Your task to perform on an android device: turn on the 12-hour format for clock Image 0: 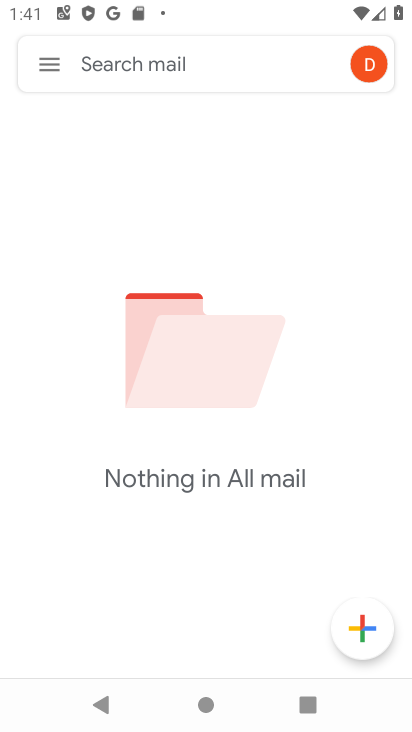
Step 0: press home button
Your task to perform on an android device: turn on the 12-hour format for clock Image 1: 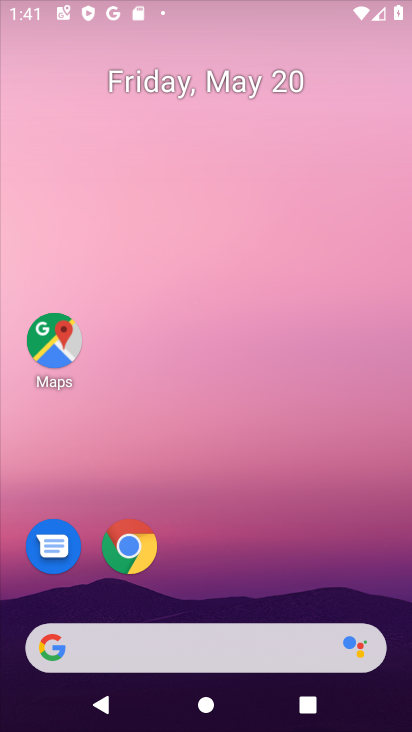
Step 1: drag from (340, 596) to (395, 7)
Your task to perform on an android device: turn on the 12-hour format for clock Image 2: 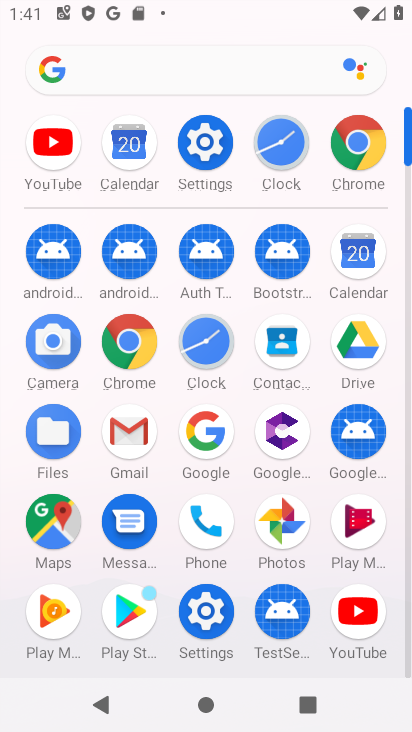
Step 2: click (210, 345)
Your task to perform on an android device: turn on the 12-hour format for clock Image 3: 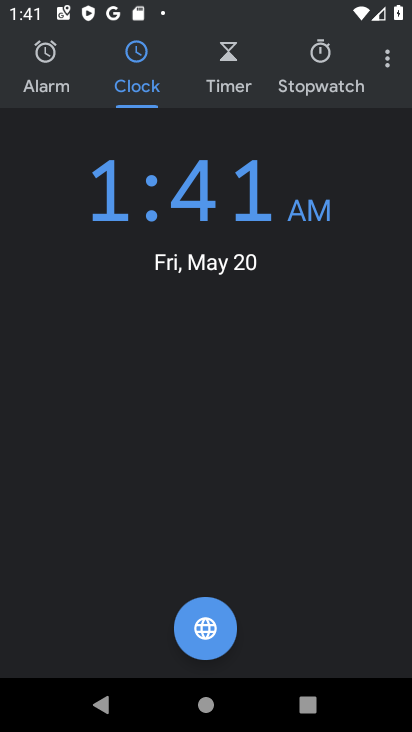
Step 3: click (393, 60)
Your task to perform on an android device: turn on the 12-hour format for clock Image 4: 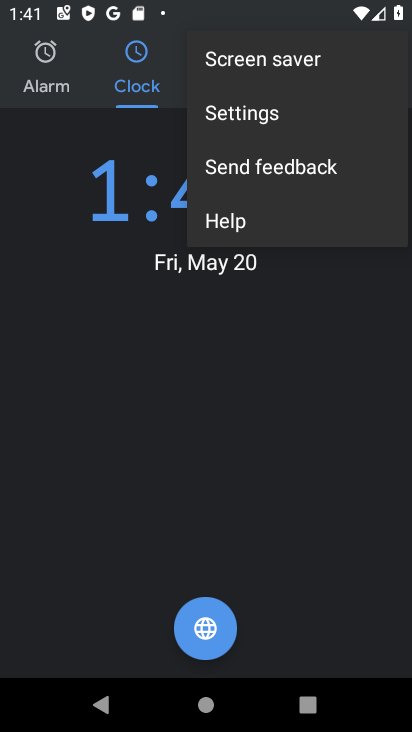
Step 4: click (281, 111)
Your task to perform on an android device: turn on the 12-hour format for clock Image 5: 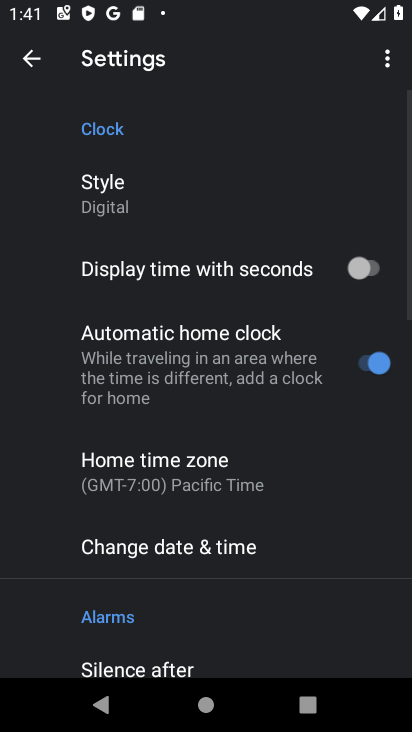
Step 5: click (267, 545)
Your task to perform on an android device: turn on the 12-hour format for clock Image 6: 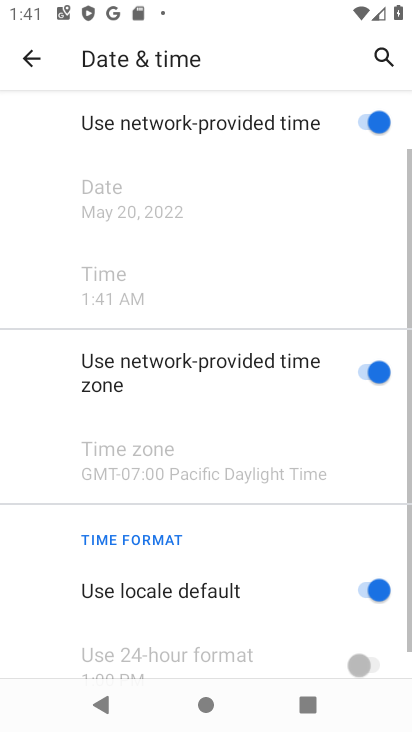
Step 6: drag from (226, 591) to (272, 20)
Your task to perform on an android device: turn on the 12-hour format for clock Image 7: 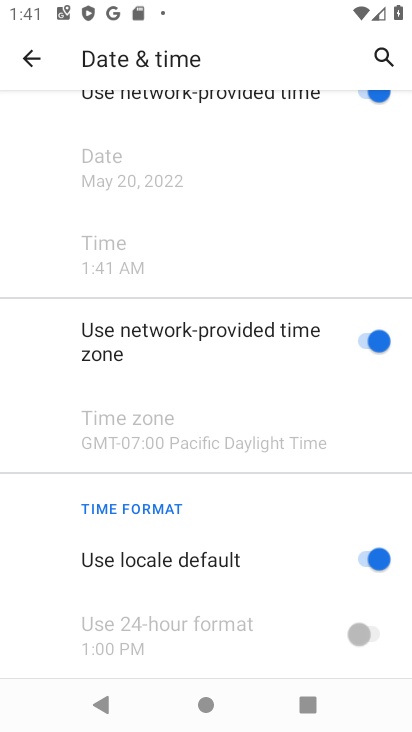
Step 7: click (367, 561)
Your task to perform on an android device: turn on the 12-hour format for clock Image 8: 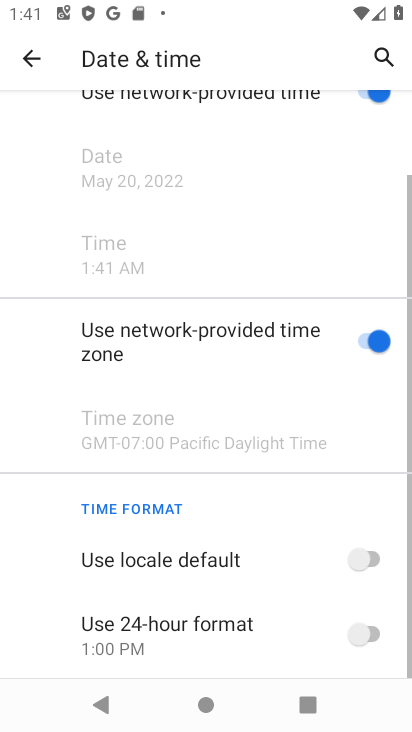
Step 8: task complete